Your task to perform on an android device: Open display settings Image 0: 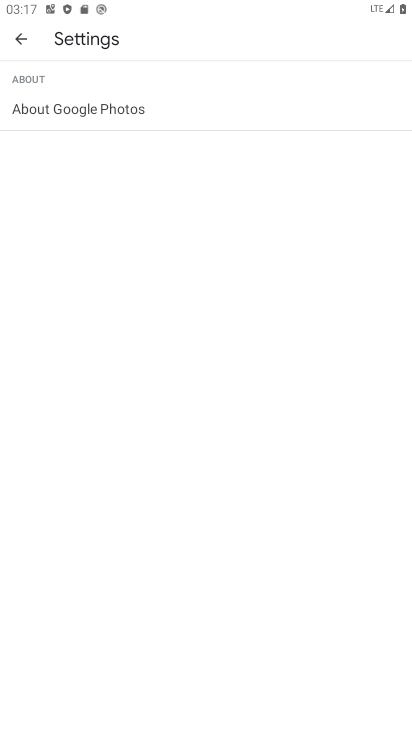
Step 0: press home button
Your task to perform on an android device: Open display settings Image 1: 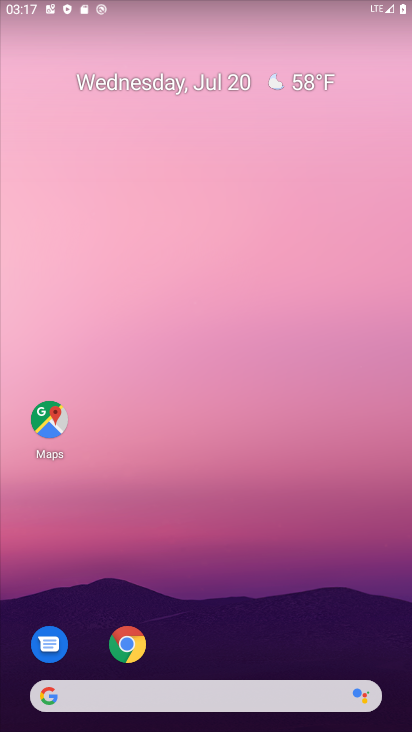
Step 1: drag from (80, 601) to (240, 301)
Your task to perform on an android device: Open display settings Image 2: 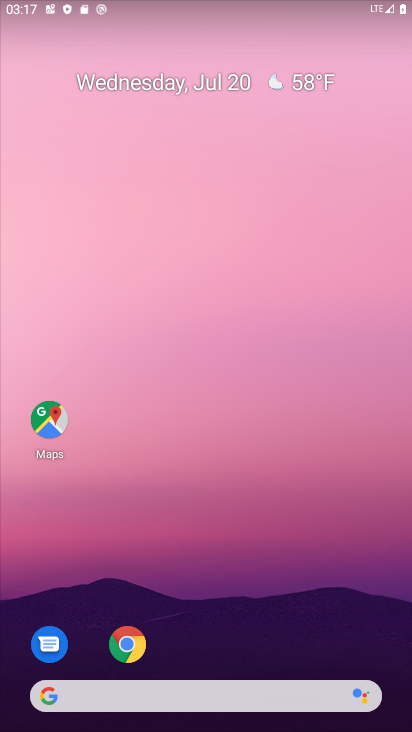
Step 2: drag from (16, 675) to (224, 80)
Your task to perform on an android device: Open display settings Image 3: 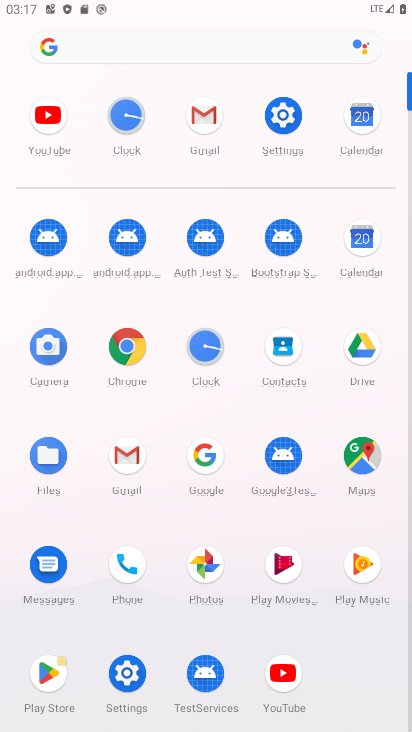
Step 3: click (121, 694)
Your task to perform on an android device: Open display settings Image 4: 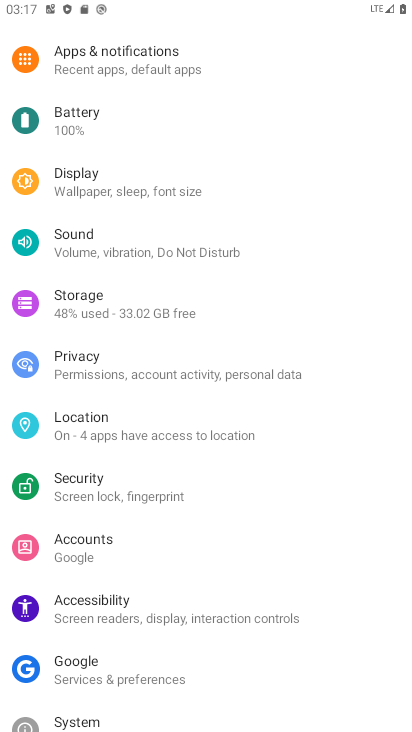
Step 4: click (76, 162)
Your task to perform on an android device: Open display settings Image 5: 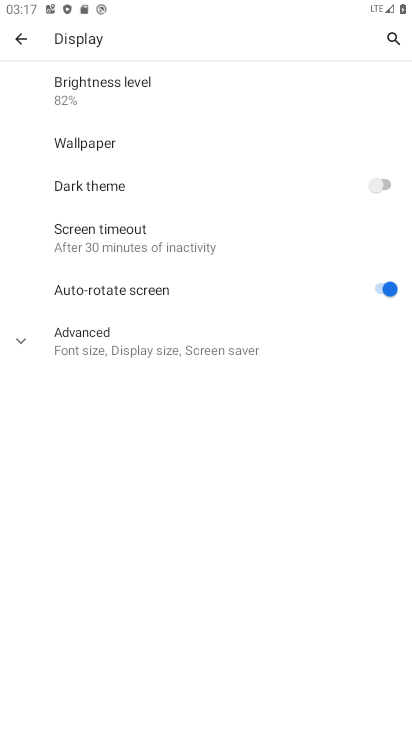
Step 5: task complete